Your task to perform on an android device: stop showing notifications on the lock screen Image 0: 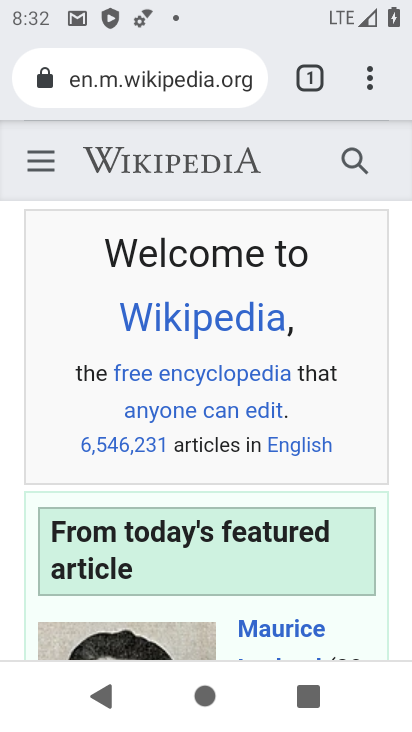
Step 0: press back button
Your task to perform on an android device: stop showing notifications on the lock screen Image 1: 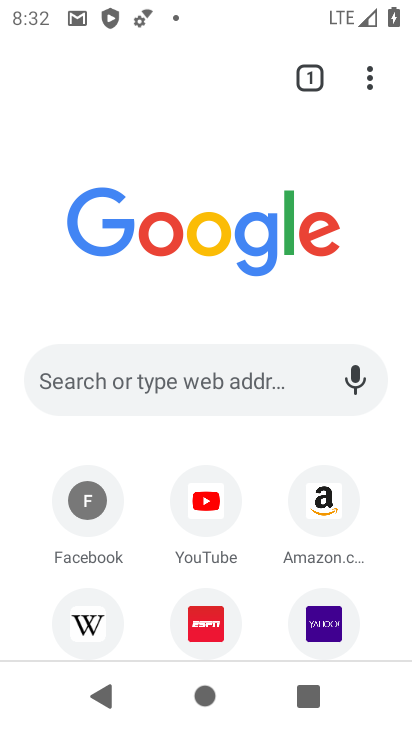
Step 1: press back button
Your task to perform on an android device: stop showing notifications on the lock screen Image 2: 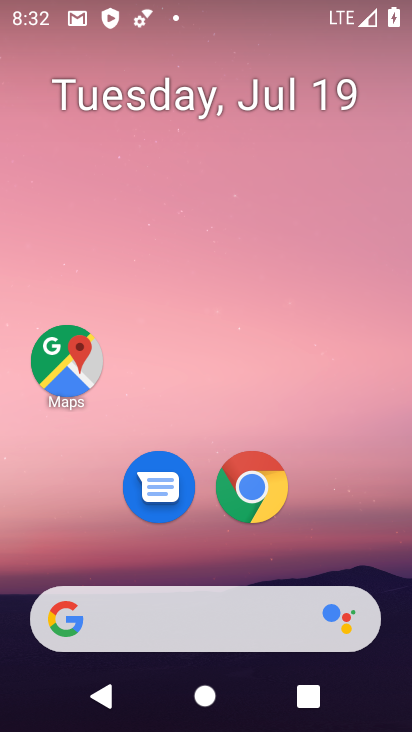
Step 2: drag from (148, 563) to (217, 3)
Your task to perform on an android device: stop showing notifications on the lock screen Image 3: 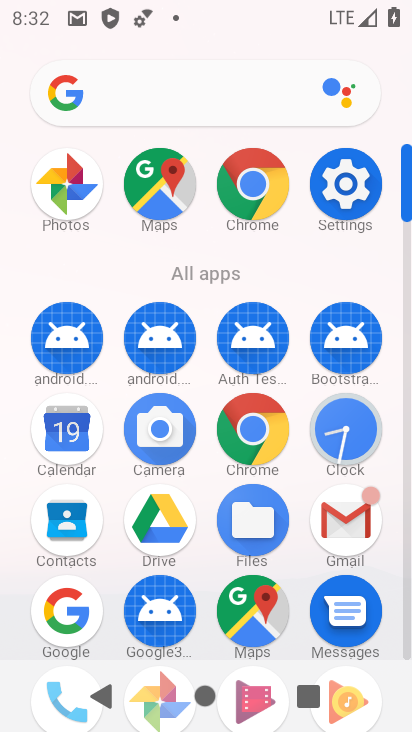
Step 3: click (337, 173)
Your task to perform on an android device: stop showing notifications on the lock screen Image 4: 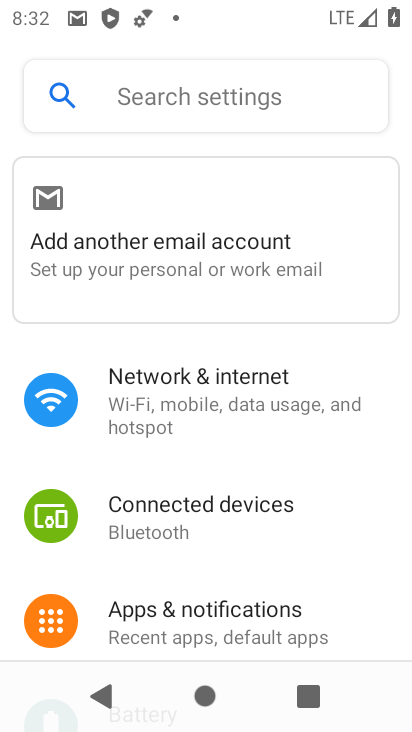
Step 4: click (206, 613)
Your task to perform on an android device: stop showing notifications on the lock screen Image 5: 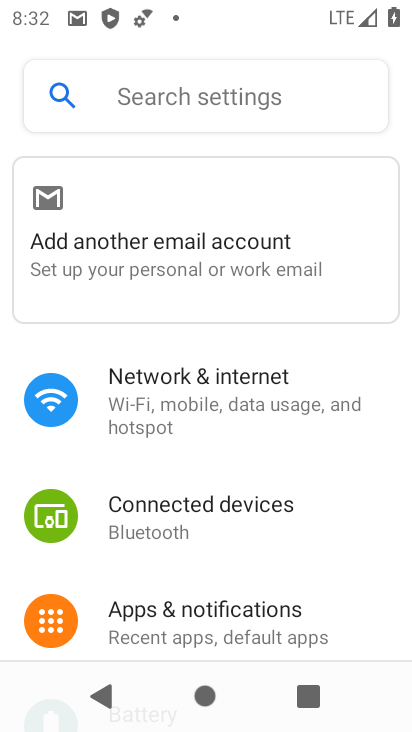
Step 5: drag from (213, 585) to (269, 119)
Your task to perform on an android device: stop showing notifications on the lock screen Image 6: 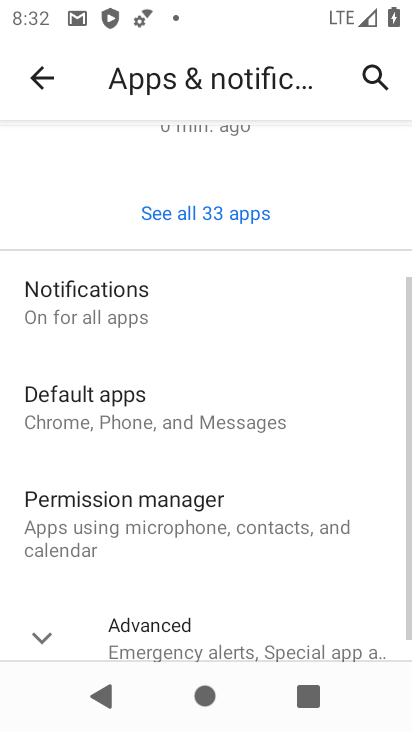
Step 6: click (151, 299)
Your task to perform on an android device: stop showing notifications on the lock screen Image 7: 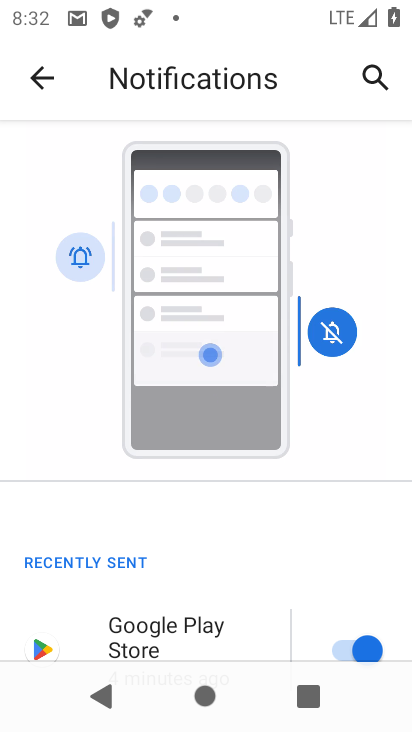
Step 7: drag from (210, 634) to (256, 9)
Your task to perform on an android device: stop showing notifications on the lock screen Image 8: 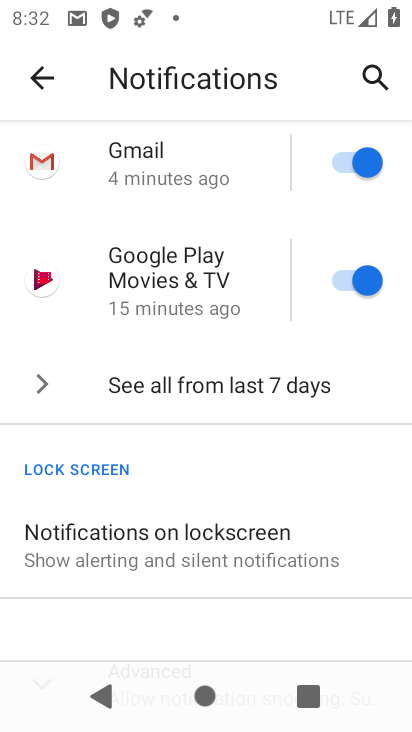
Step 8: click (164, 557)
Your task to perform on an android device: stop showing notifications on the lock screen Image 9: 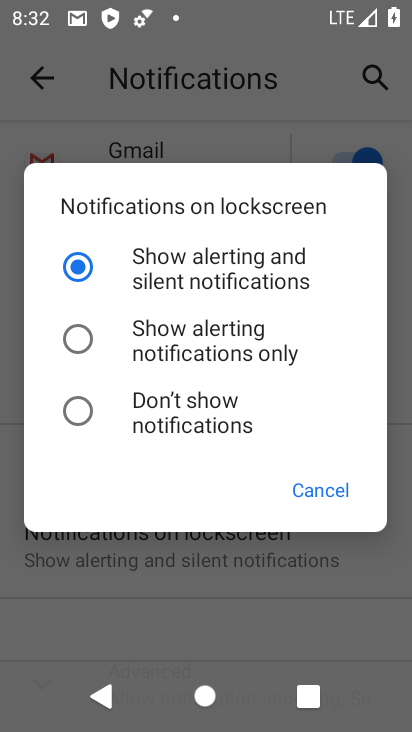
Step 9: click (95, 412)
Your task to perform on an android device: stop showing notifications on the lock screen Image 10: 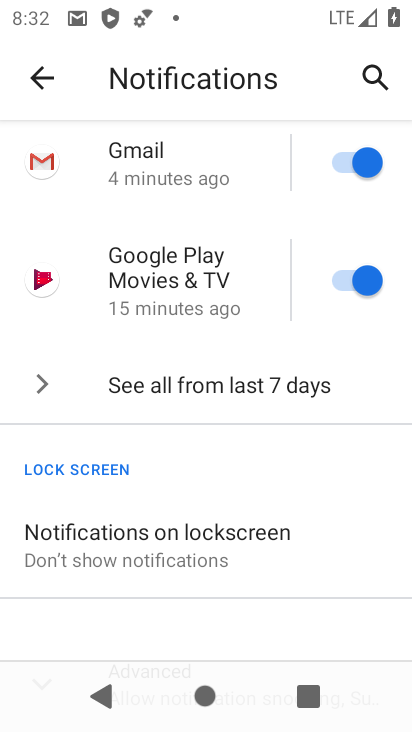
Step 10: task complete